Your task to perform on an android device: add a contact Image 0: 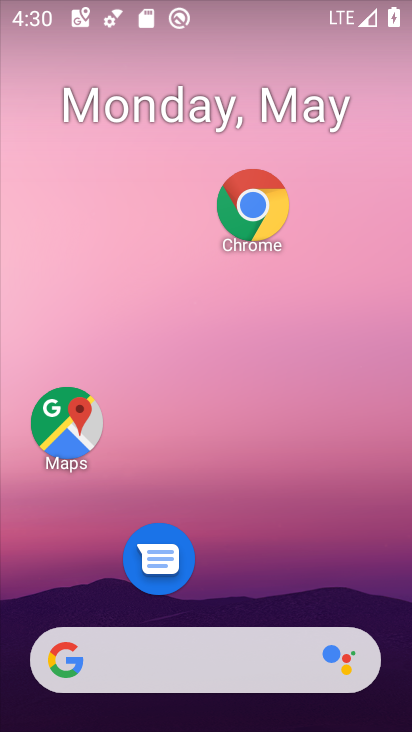
Step 0: drag from (230, 585) to (163, 190)
Your task to perform on an android device: add a contact Image 1: 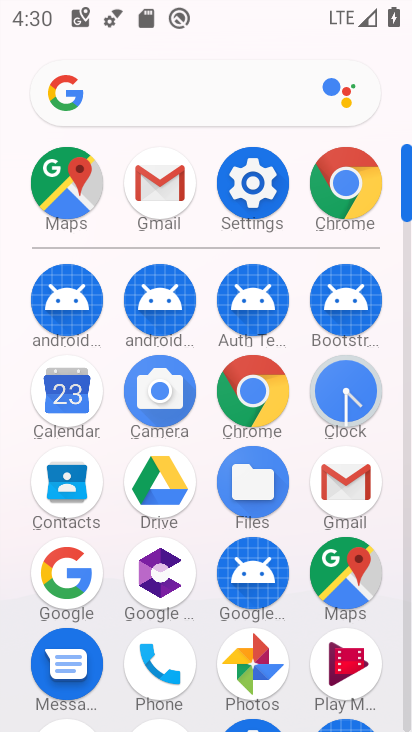
Step 1: drag from (219, 383) to (245, 184)
Your task to perform on an android device: add a contact Image 2: 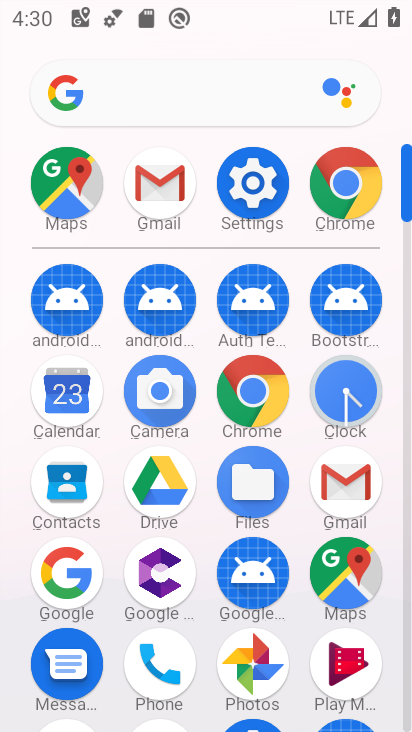
Step 2: click (66, 496)
Your task to perform on an android device: add a contact Image 3: 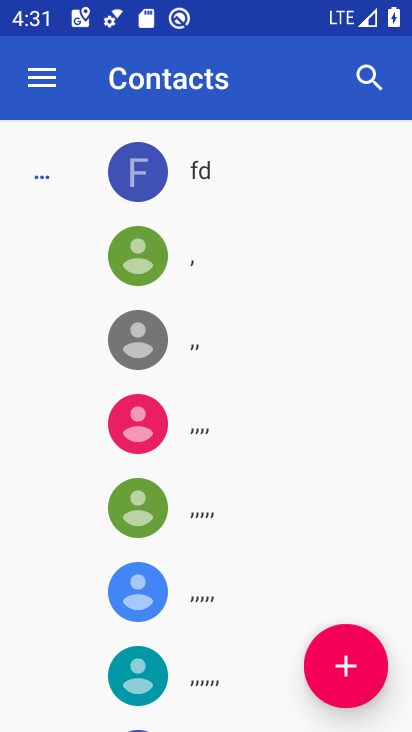
Step 3: click (332, 687)
Your task to perform on an android device: add a contact Image 4: 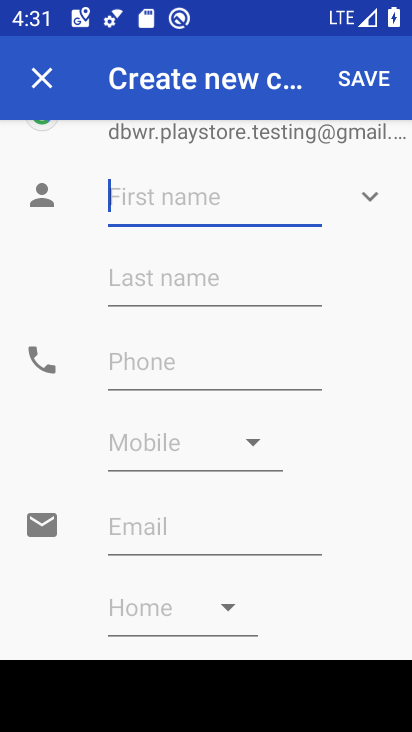
Step 4: click (176, 203)
Your task to perform on an android device: add a contact Image 5: 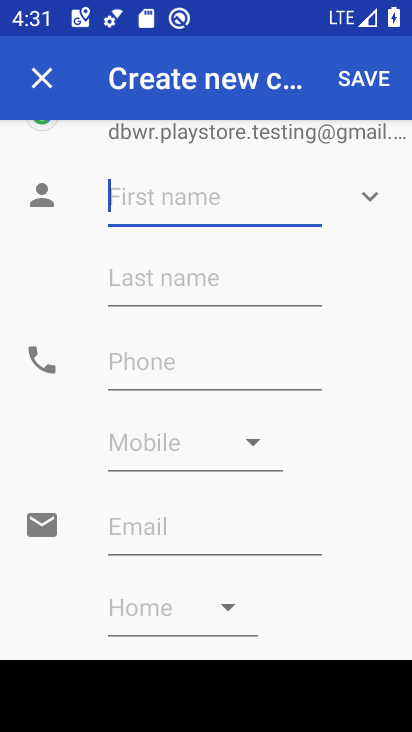
Step 5: type "Rudra"
Your task to perform on an android device: add a contact Image 6: 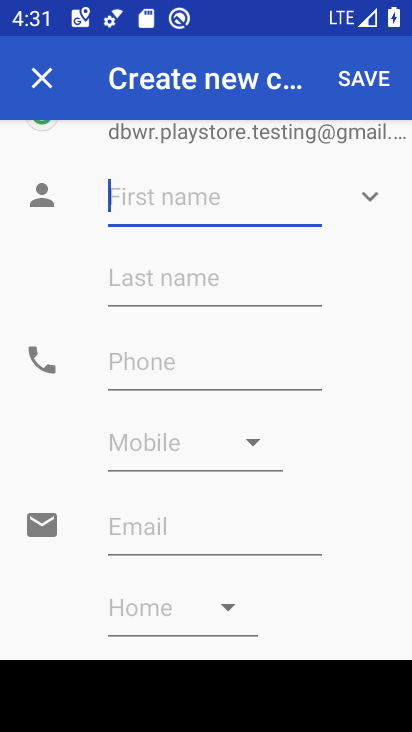
Step 6: click (186, 289)
Your task to perform on an android device: add a contact Image 7: 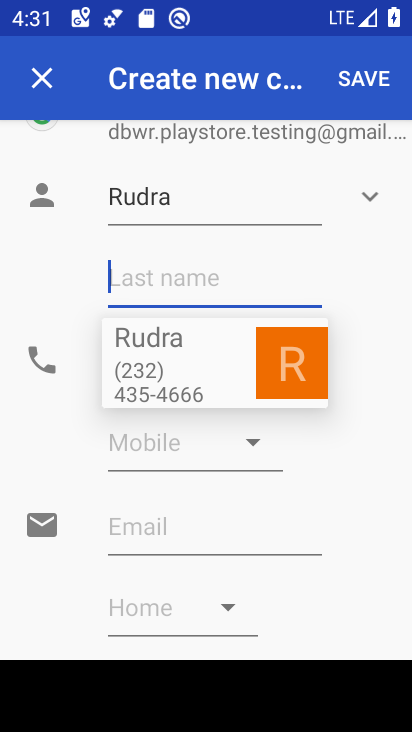
Step 7: type "pratap"
Your task to perform on an android device: add a contact Image 8: 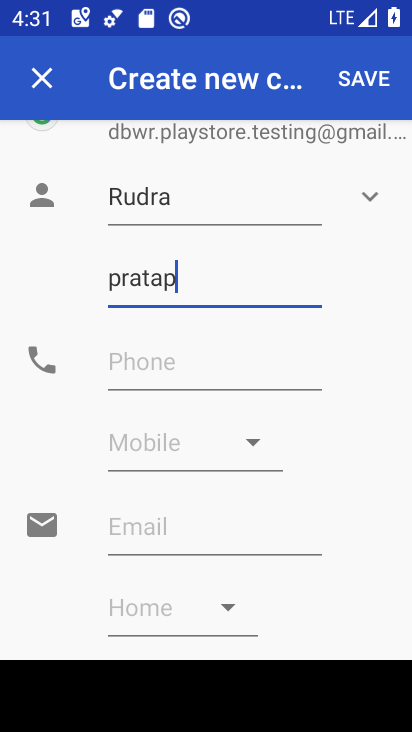
Step 8: click (155, 373)
Your task to perform on an android device: add a contact Image 9: 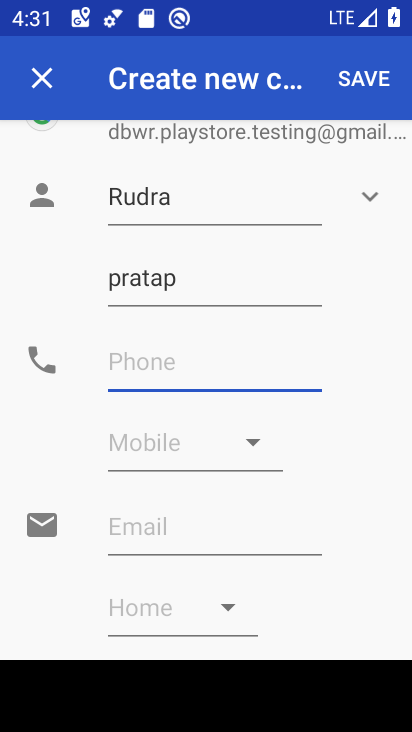
Step 9: type "8787787899"
Your task to perform on an android device: add a contact Image 10: 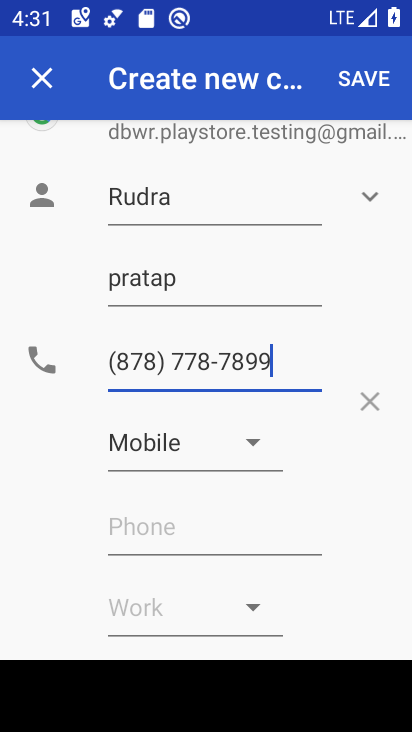
Step 10: click (356, 83)
Your task to perform on an android device: add a contact Image 11: 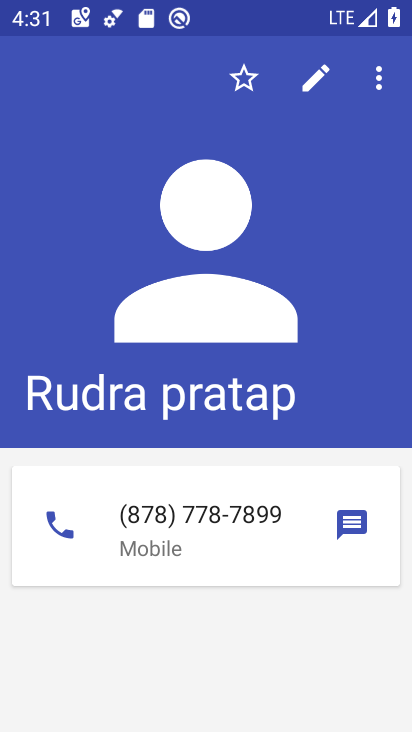
Step 11: task complete